Your task to perform on an android device: Search for a 24-inch cordless drill. Image 0: 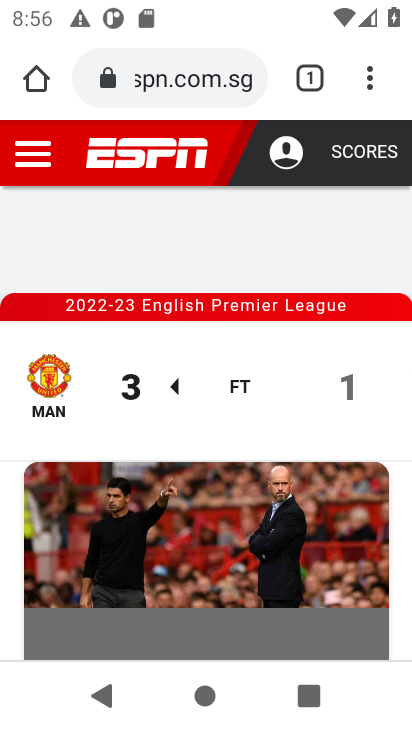
Step 0: task complete